Your task to perform on an android device: Search for vegetarian restaurants on Maps Image 0: 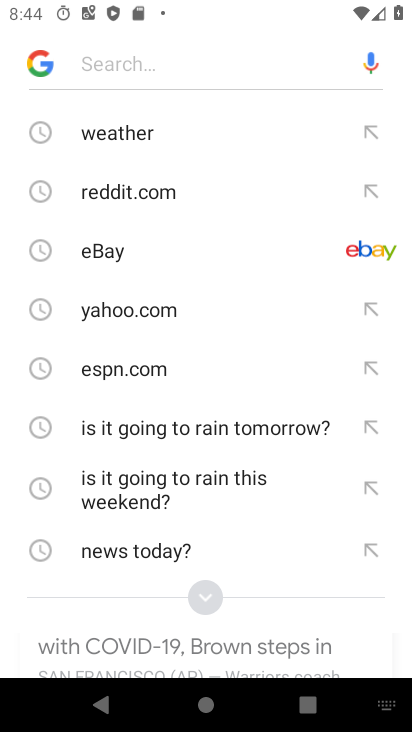
Step 0: press home button
Your task to perform on an android device: Search for vegetarian restaurants on Maps Image 1: 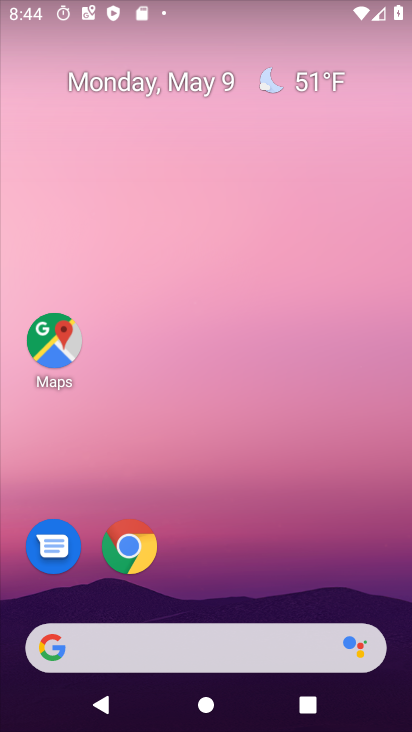
Step 1: click (50, 335)
Your task to perform on an android device: Search for vegetarian restaurants on Maps Image 2: 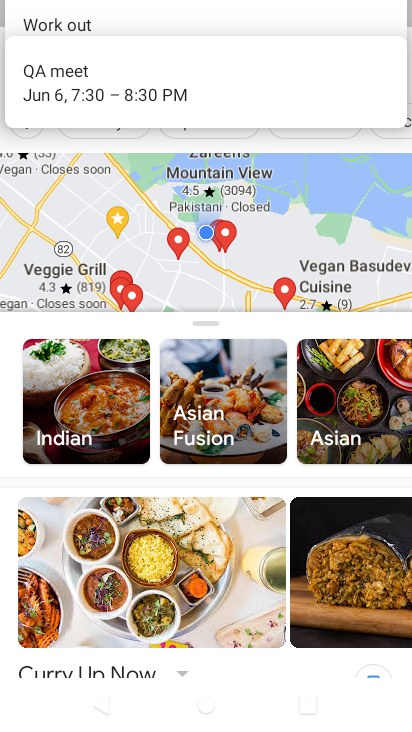
Step 2: task complete